Your task to perform on an android device: Open Google Maps Image 0: 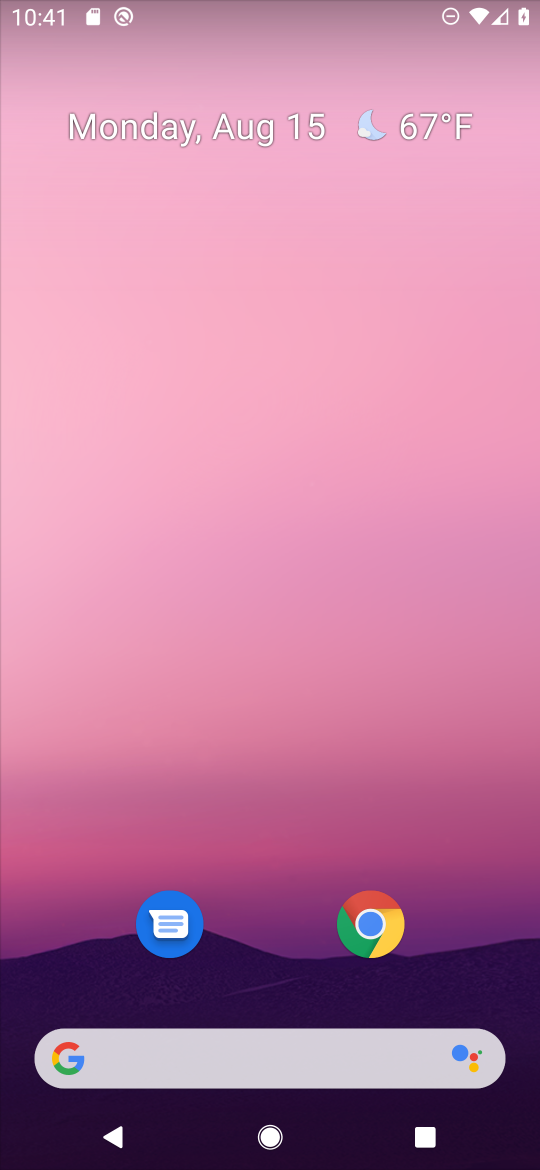
Step 0: drag from (507, 986) to (400, 70)
Your task to perform on an android device: Open Google Maps Image 1: 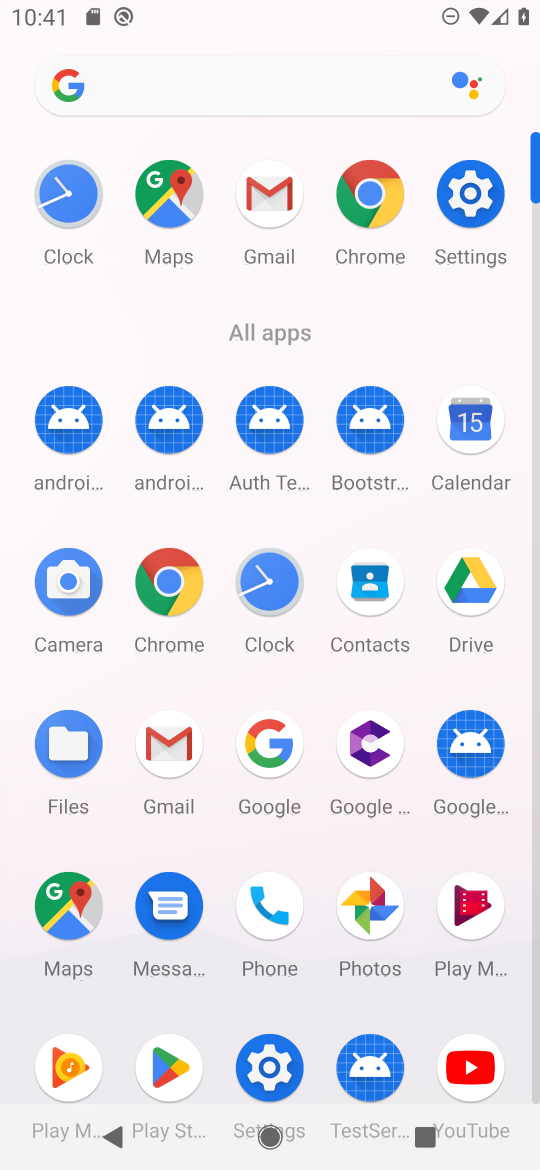
Step 1: click (65, 905)
Your task to perform on an android device: Open Google Maps Image 2: 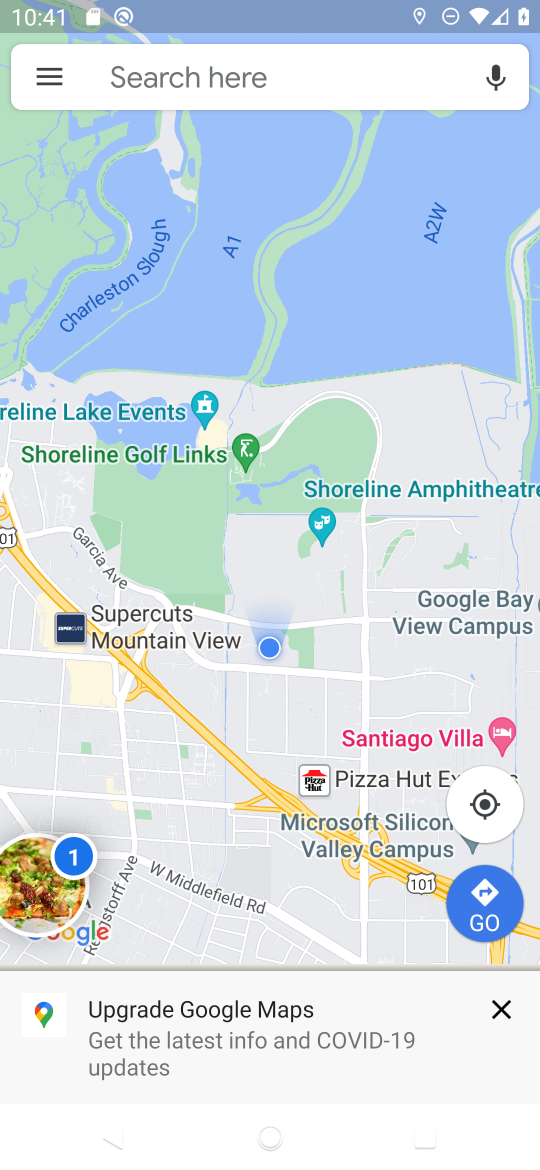
Step 2: task complete